Your task to perform on an android device: turn on data saver in the chrome app Image 0: 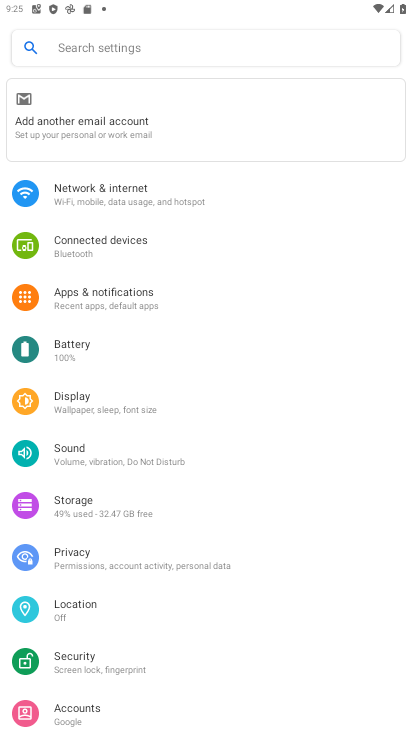
Step 0: click (86, 609)
Your task to perform on an android device: turn on data saver in the chrome app Image 1: 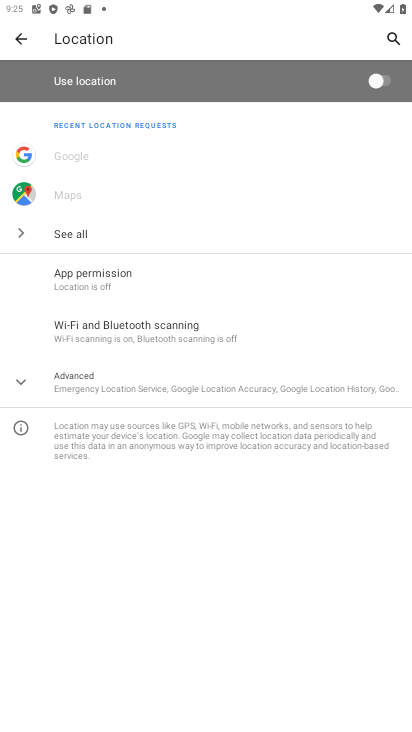
Step 1: click (380, 76)
Your task to perform on an android device: turn on data saver in the chrome app Image 2: 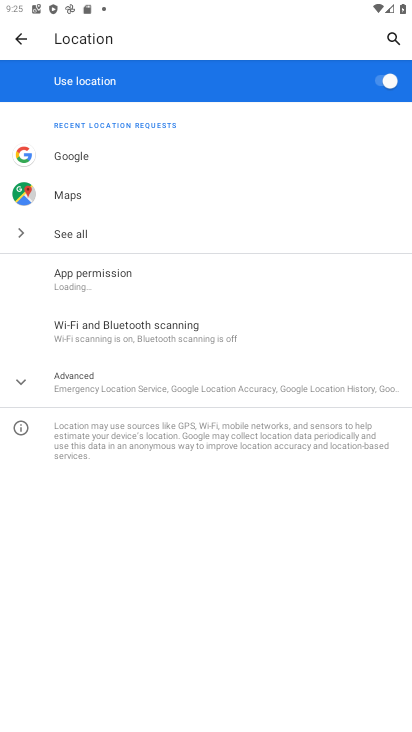
Step 2: task complete